Your task to perform on an android device: remove spam from my inbox in the gmail app Image 0: 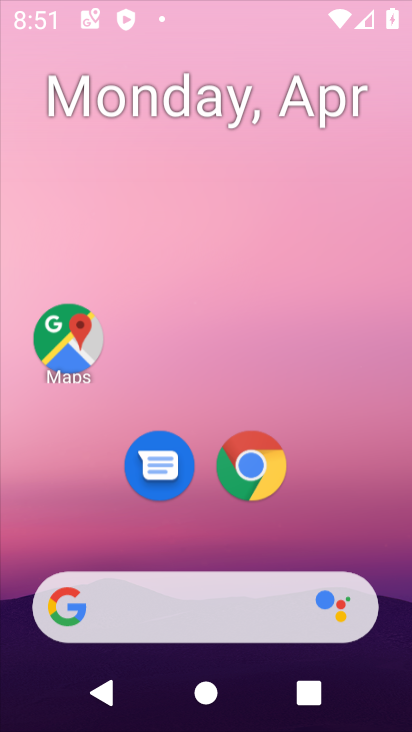
Step 0: press home button
Your task to perform on an android device: remove spam from my inbox in the gmail app Image 1: 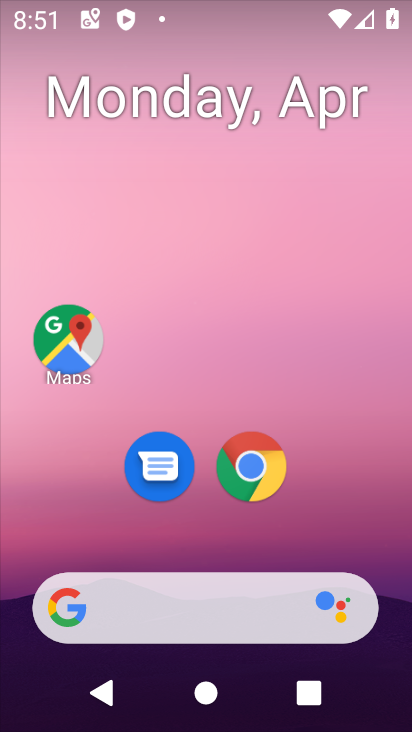
Step 1: drag from (218, 537) to (212, 134)
Your task to perform on an android device: remove spam from my inbox in the gmail app Image 2: 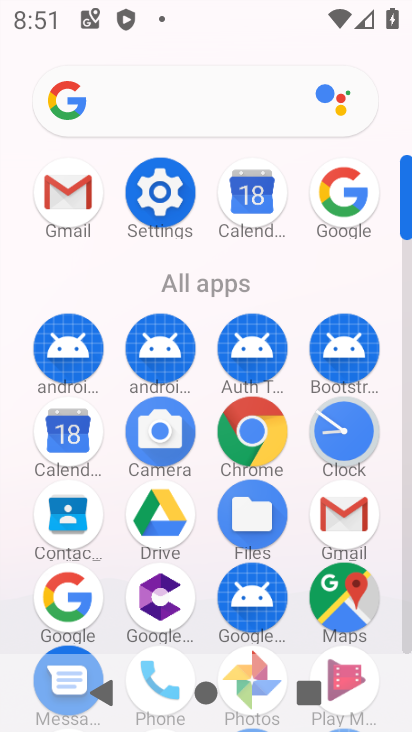
Step 2: click (75, 218)
Your task to perform on an android device: remove spam from my inbox in the gmail app Image 3: 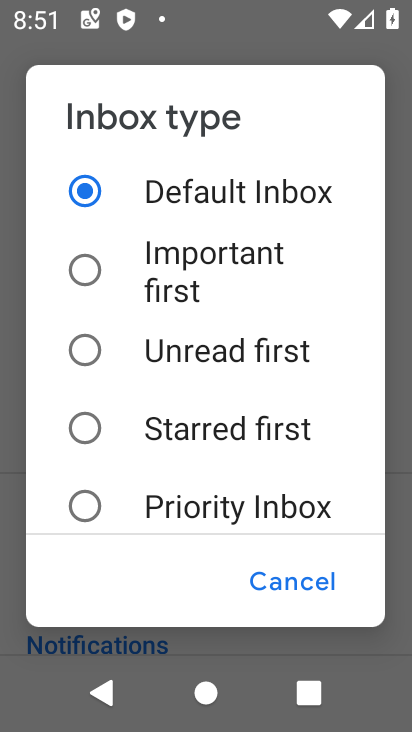
Step 3: click (281, 573)
Your task to perform on an android device: remove spam from my inbox in the gmail app Image 4: 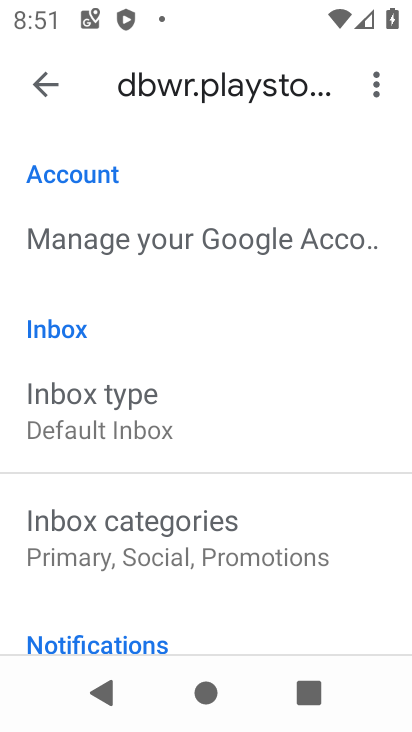
Step 4: press back button
Your task to perform on an android device: remove spam from my inbox in the gmail app Image 5: 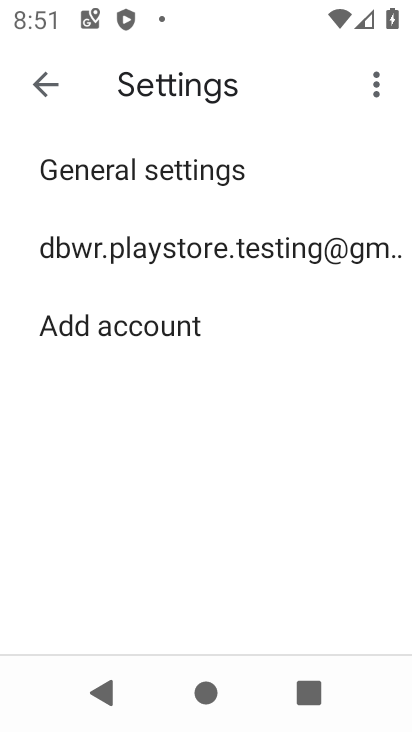
Step 5: press back button
Your task to perform on an android device: remove spam from my inbox in the gmail app Image 6: 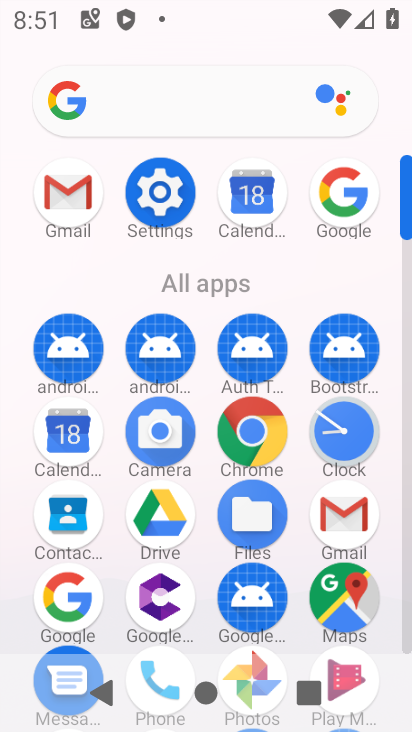
Step 6: click (69, 216)
Your task to perform on an android device: remove spam from my inbox in the gmail app Image 7: 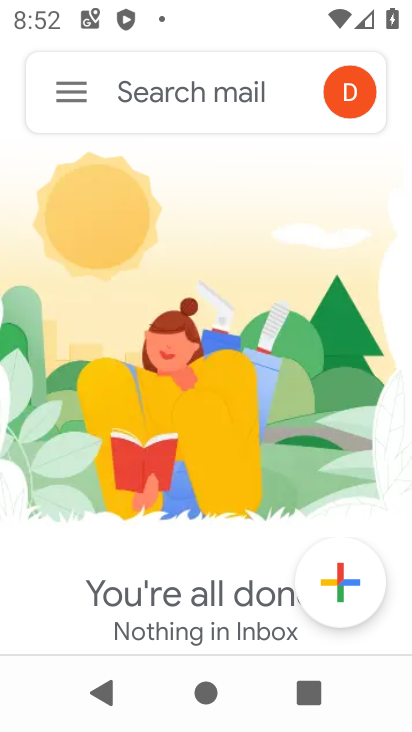
Step 7: click (75, 95)
Your task to perform on an android device: remove spam from my inbox in the gmail app Image 8: 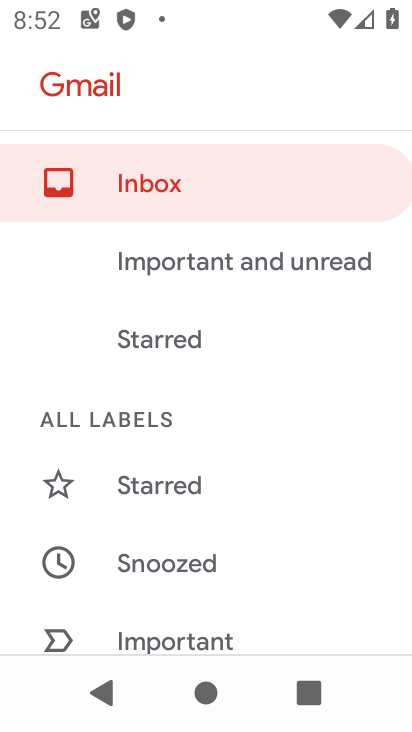
Step 8: drag from (177, 444) to (218, 344)
Your task to perform on an android device: remove spam from my inbox in the gmail app Image 9: 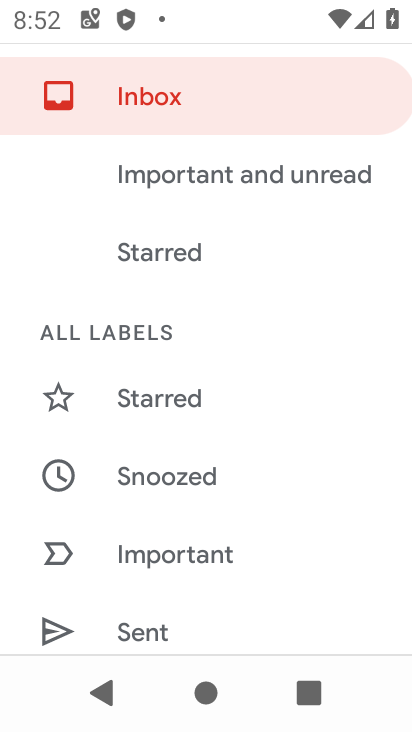
Step 9: drag from (249, 517) to (268, 397)
Your task to perform on an android device: remove spam from my inbox in the gmail app Image 10: 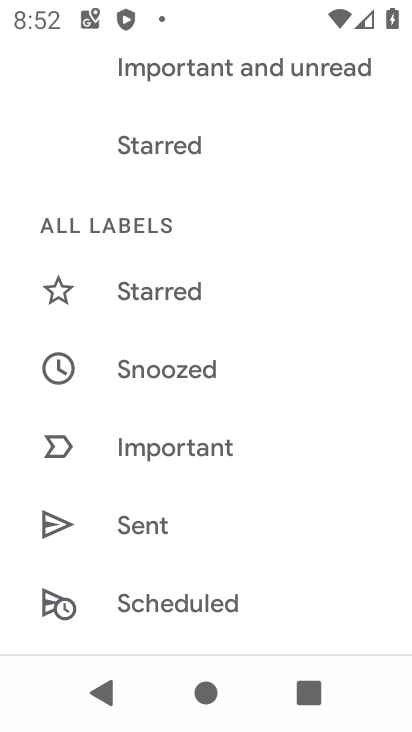
Step 10: drag from (226, 544) to (256, 444)
Your task to perform on an android device: remove spam from my inbox in the gmail app Image 11: 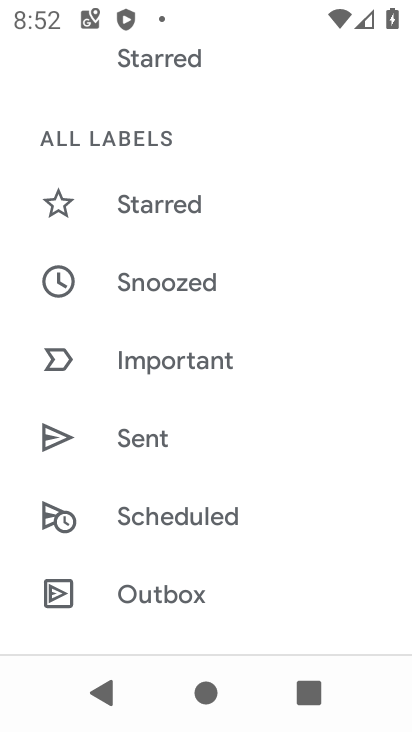
Step 11: drag from (240, 575) to (259, 481)
Your task to perform on an android device: remove spam from my inbox in the gmail app Image 12: 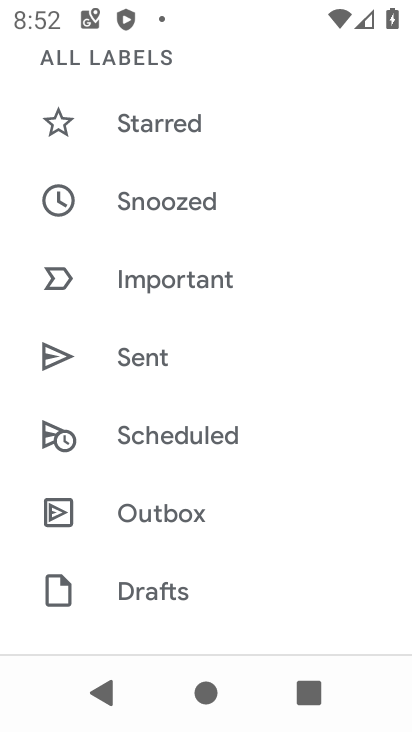
Step 12: drag from (247, 569) to (258, 463)
Your task to perform on an android device: remove spam from my inbox in the gmail app Image 13: 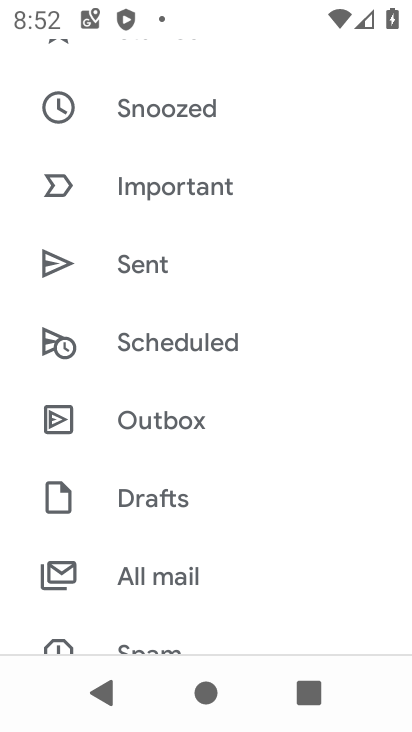
Step 13: drag from (231, 574) to (230, 470)
Your task to perform on an android device: remove spam from my inbox in the gmail app Image 14: 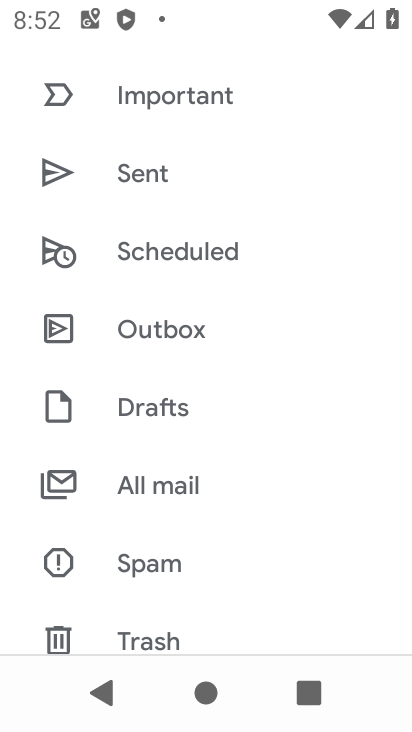
Step 14: drag from (213, 568) to (234, 478)
Your task to perform on an android device: remove spam from my inbox in the gmail app Image 15: 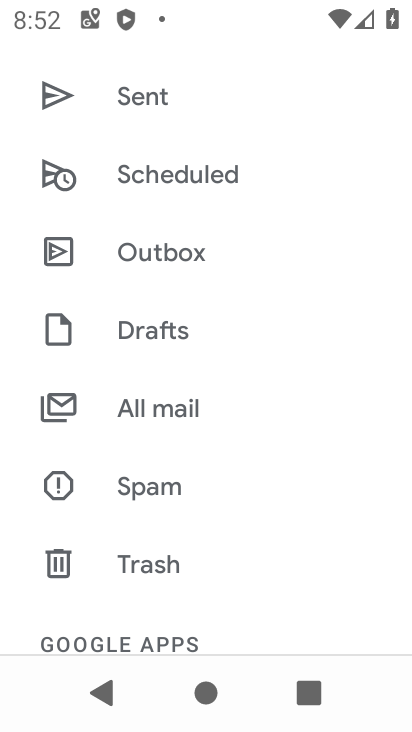
Step 15: click (178, 491)
Your task to perform on an android device: remove spam from my inbox in the gmail app Image 16: 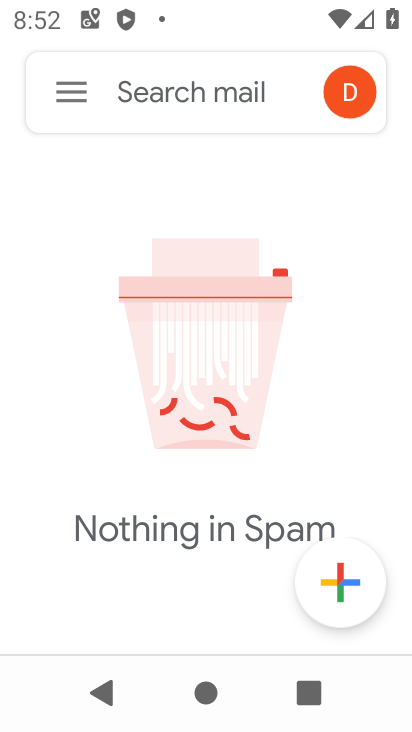
Step 16: task complete